Your task to perform on an android device: change text size in settings app Image 0: 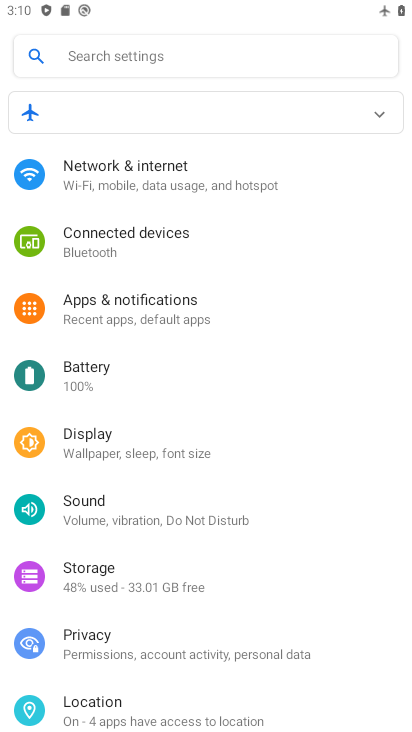
Step 0: click (113, 448)
Your task to perform on an android device: change text size in settings app Image 1: 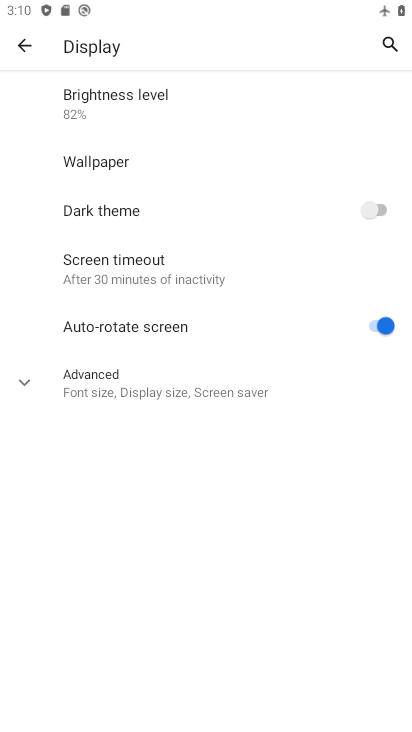
Step 1: click (67, 392)
Your task to perform on an android device: change text size in settings app Image 2: 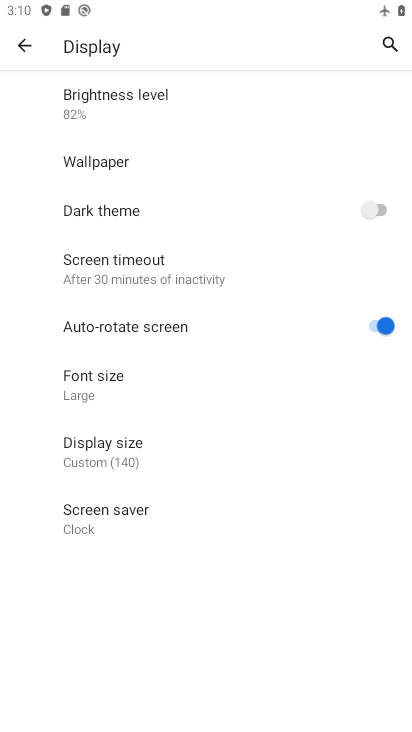
Step 2: click (105, 410)
Your task to perform on an android device: change text size in settings app Image 3: 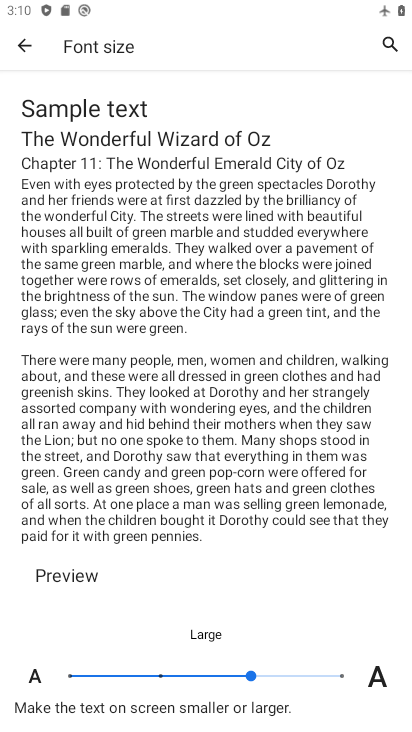
Step 3: click (159, 675)
Your task to perform on an android device: change text size in settings app Image 4: 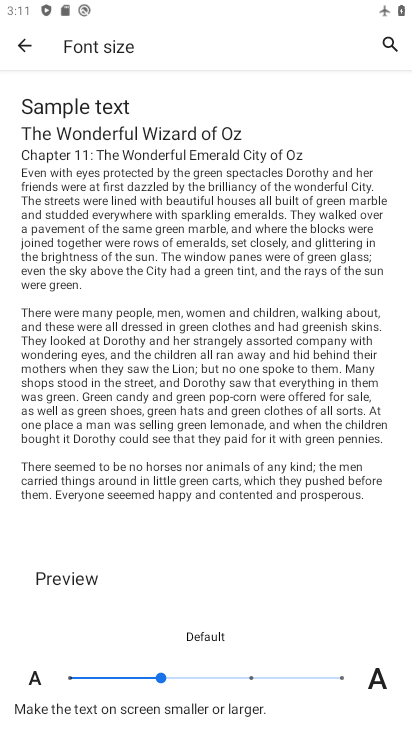
Step 4: task complete